Your task to perform on an android device: Go to wifi settings Image 0: 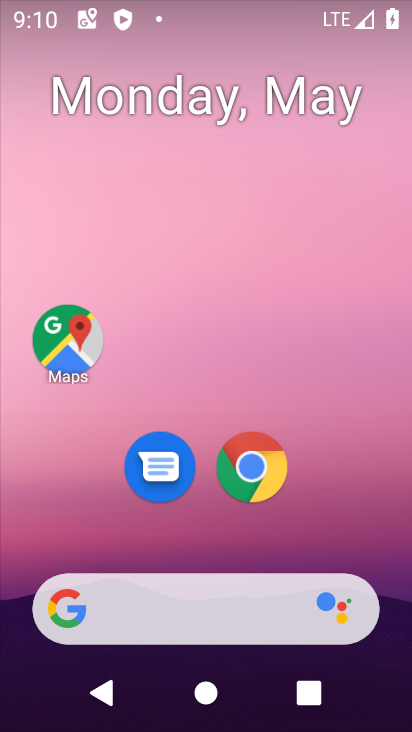
Step 0: drag from (340, 533) to (209, 19)
Your task to perform on an android device: Go to wifi settings Image 1: 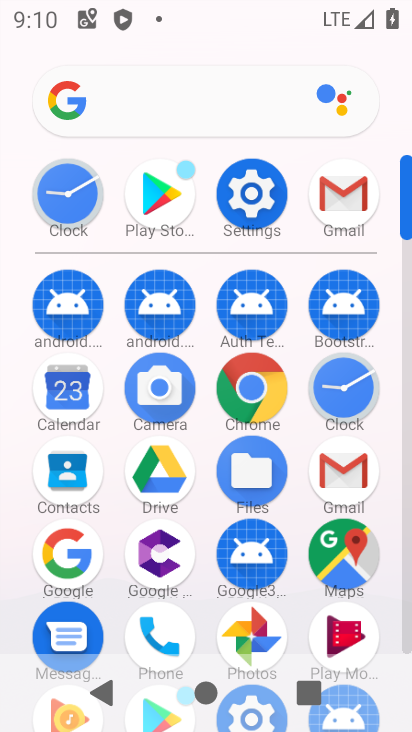
Step 1: click (265, 179)
Your task to perform on an android device: Go to wifi settings Image 2: 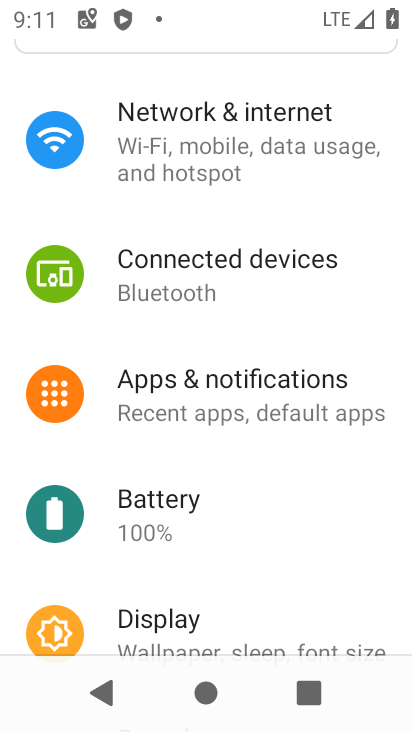
Step 2: click (217, 168)
Your task to perform on an android device: Go to wifi settings Image 3: 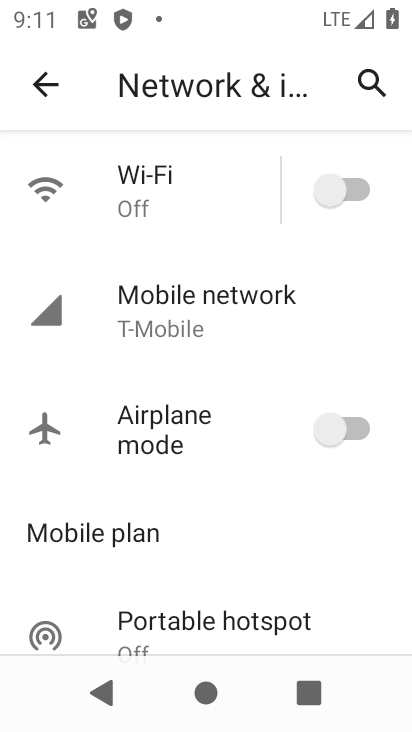
Step 3: click (172, 197)
Your task to perform on an android device: Go to wifi settings Image 4: 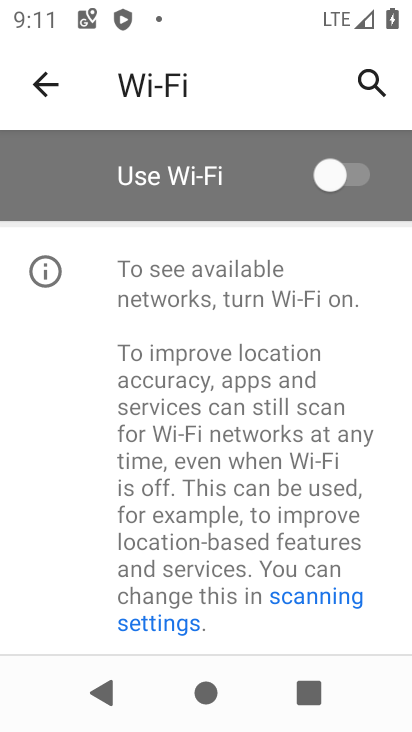
Step 4: task complete